Your task to perform on an android device: empty trash in the gmail app Image 0: 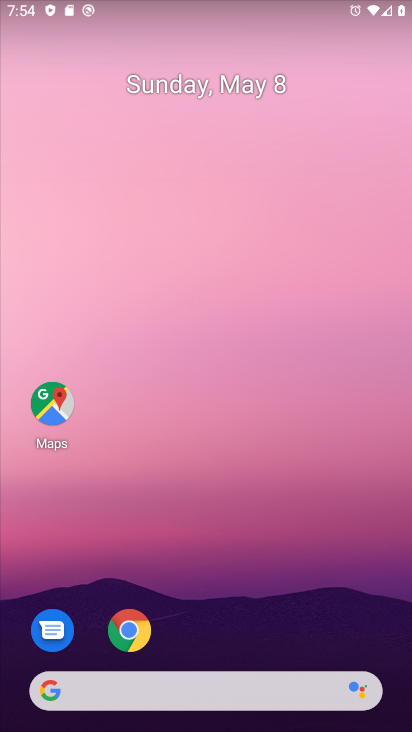
Step 0: drag from (200, 666) to (147, 14)
Your task to perform on an android device: empty trash in the gmail app Image 1: 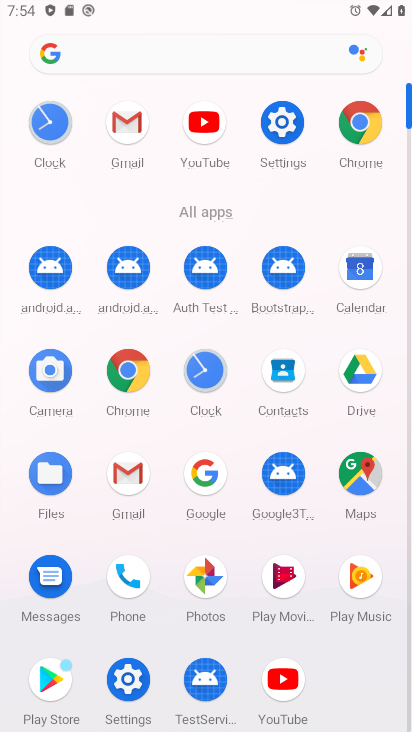
Step 1: click (131, 124)
Your task to perform on an android device: empty trash in the gmail app Image 2: 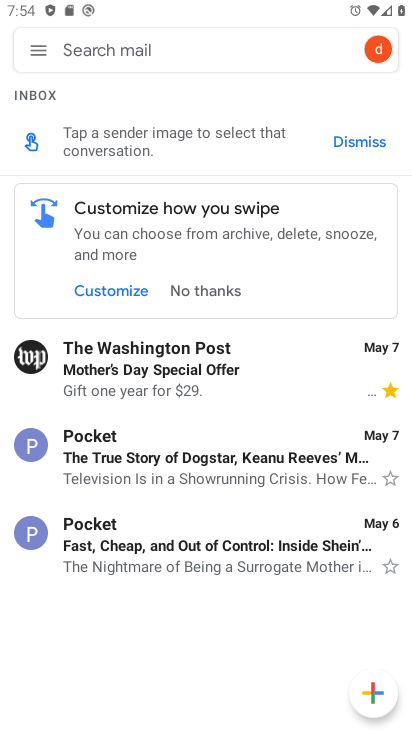
Step 2: click (40, 42)
Your task to perform on an android device: empty trash in the gmail app Image 3: 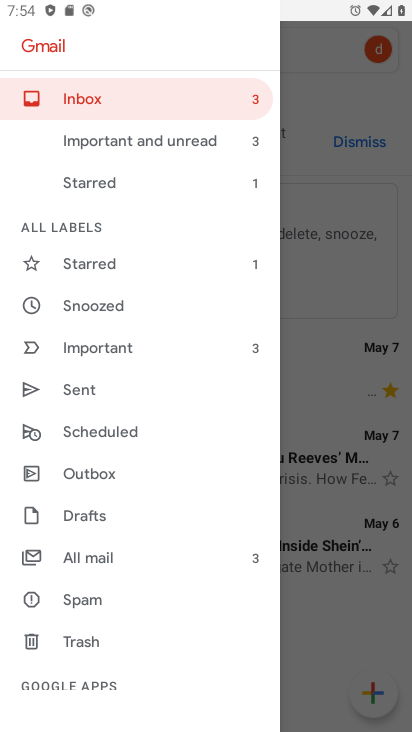
Step 3: click (83, 649)
Your task to perform on an android device: empty trash in the gmail app Image 4: 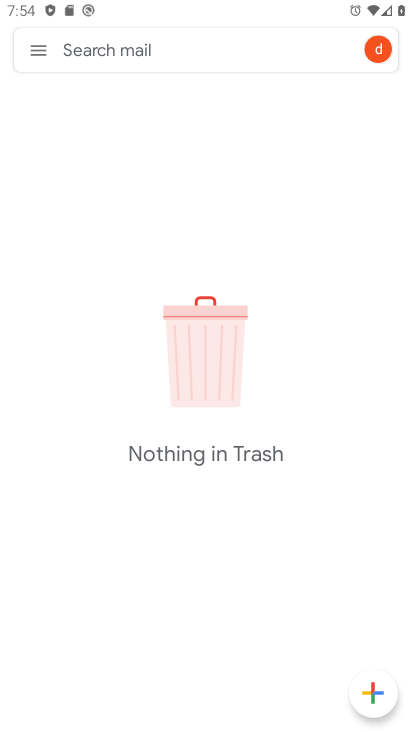
Step 4: task complete